Your task to perform on an android device: Search for "logitech g pro" on bestbuy, select the first entry, add it to the cart, then select checkout. Image 0: 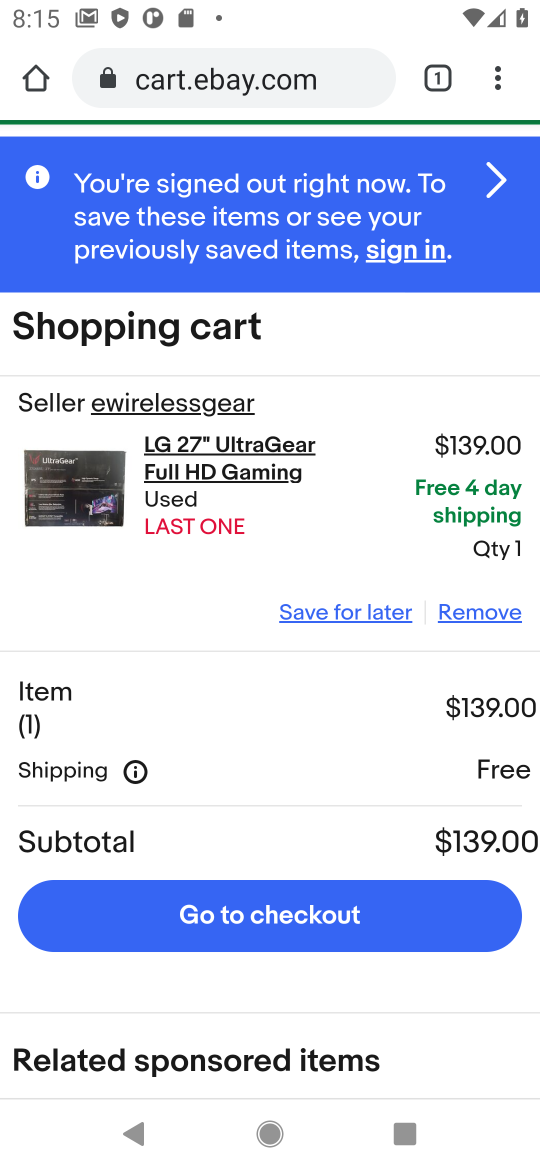
Step 0: press home button
Your task to perform on an android device: Search for "logitech g pro" on bestbuy, select the first entry, add it to the cart, then select checkout. Image 1: 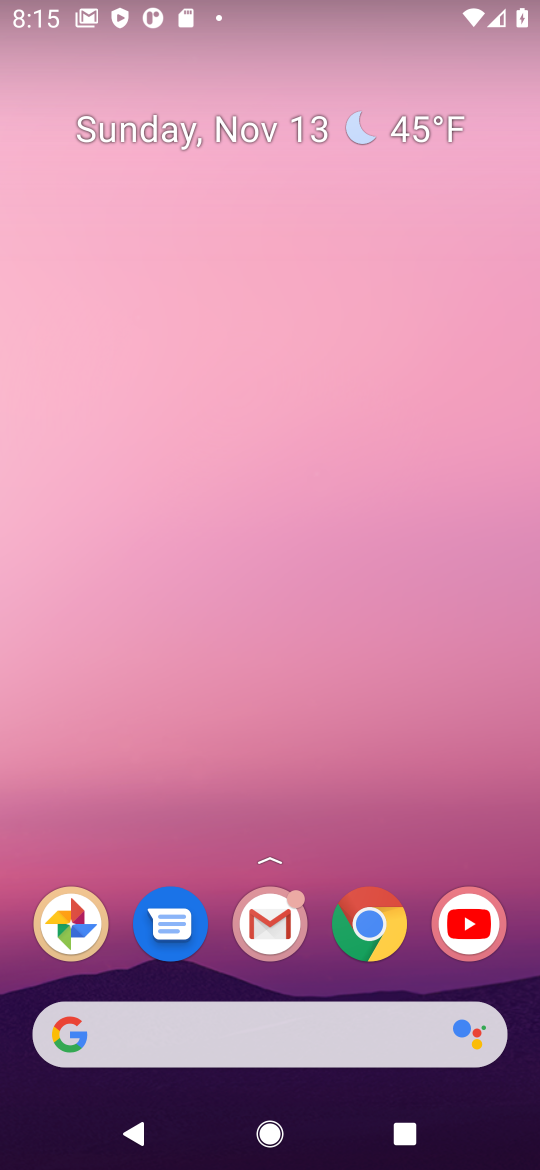
Step 1: click (377, 930)
Your task to perform on an android device: Search for "logitech g pro" on bestbuy, select the first entry, add it to the cart, then select checkout. Image 2: 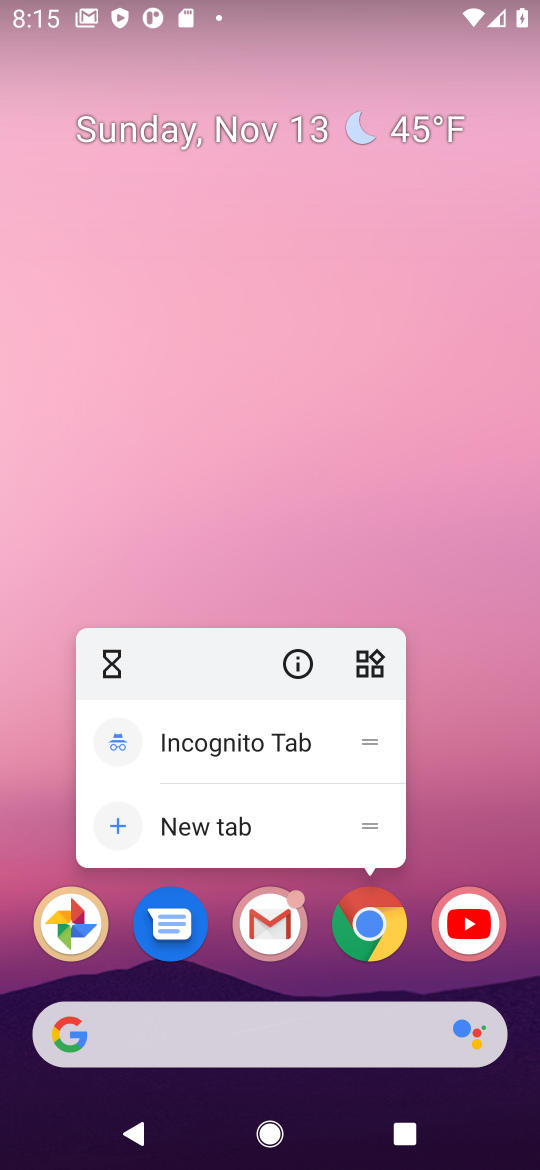
Step 2: click (371, 928)
Your task to perform on an android device: Search for "logitech g pro" on bestbuy, select the first entry, add it to the cart, then select checkout. Image 3: 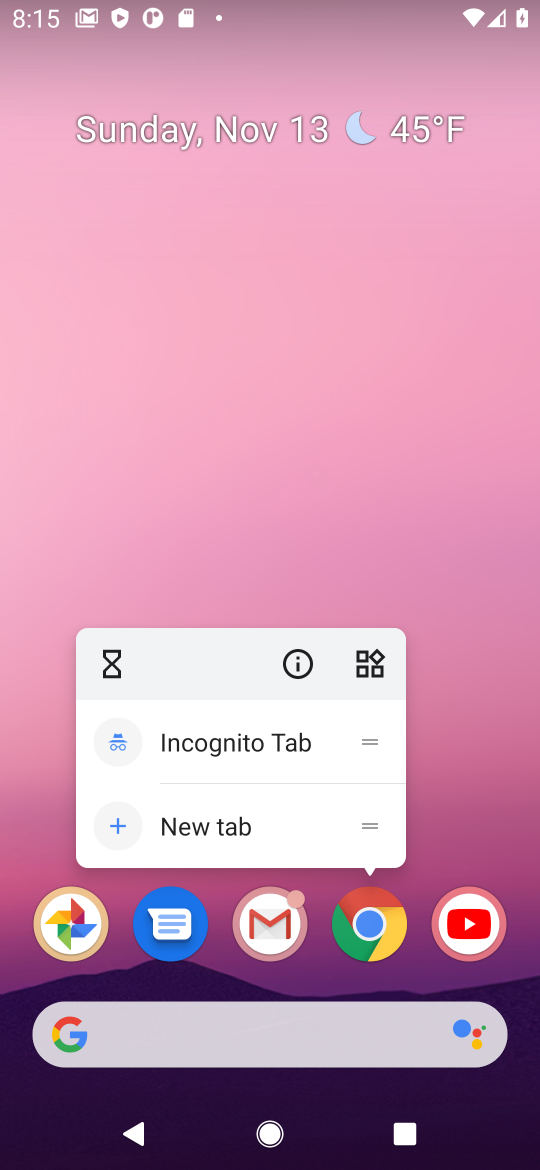
Step 3: click (372, 928)
Your task to perform on an android device: Search for "logitech g pro" on bestbuy, select the first entry, add it to the cart, then select checkout. Image 4: 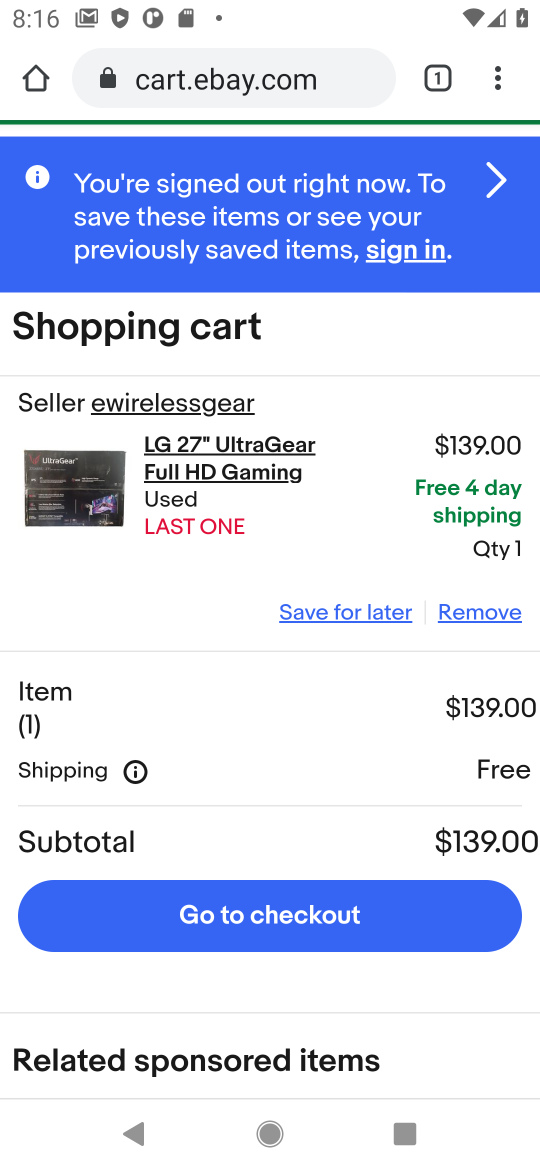
Step 4: click (282, 76)
Your task to perform on an android device: Search for "logitech g pro" on bestbuy, select the first entry, add it to the cart, then select checkout. Image 5: 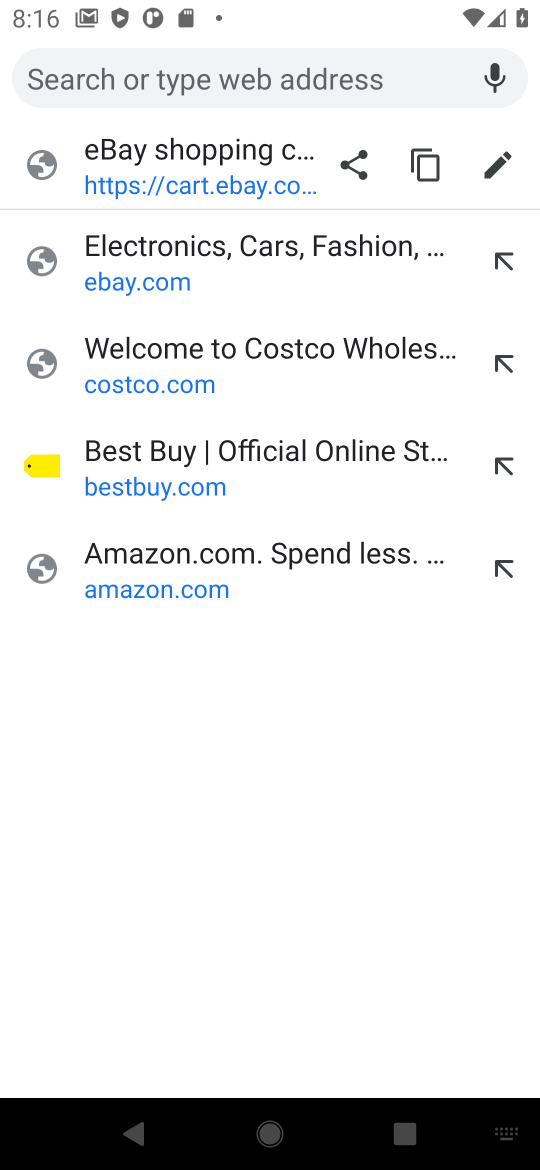
Step 5: click (134, 482)
Your task to perform on an android device: Search for "logitech g pro" on bestbuy, select the first entry, add it to the cart, then select checkout. Image 6: 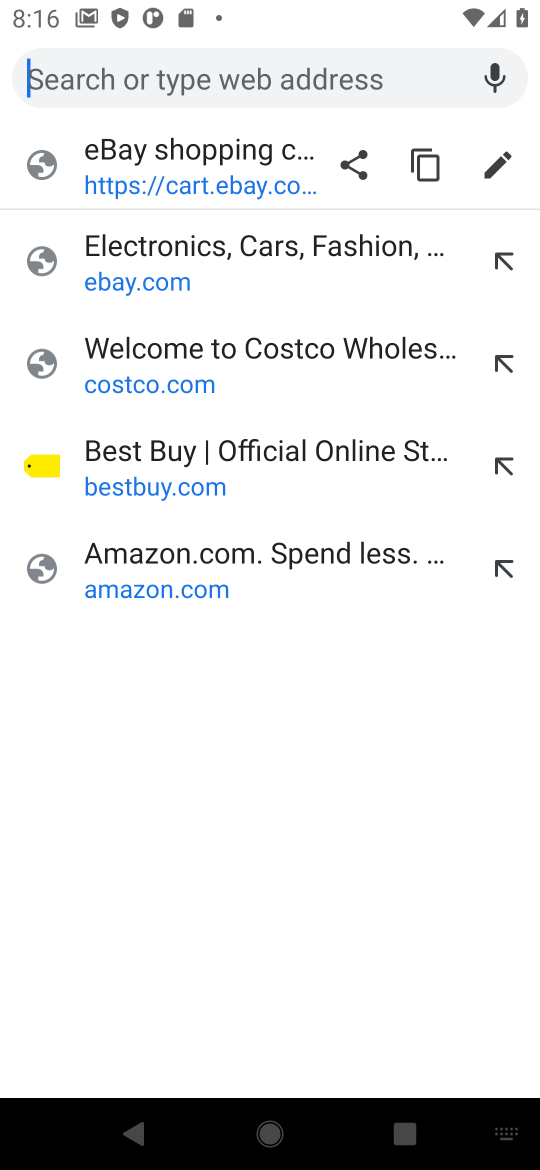
Step 6: click (141, 476)
Your task to perform on an android device: Search for "logitech g pro" on bestbuy, select the first entry, add it to the cart, then select checkout. Image 7: 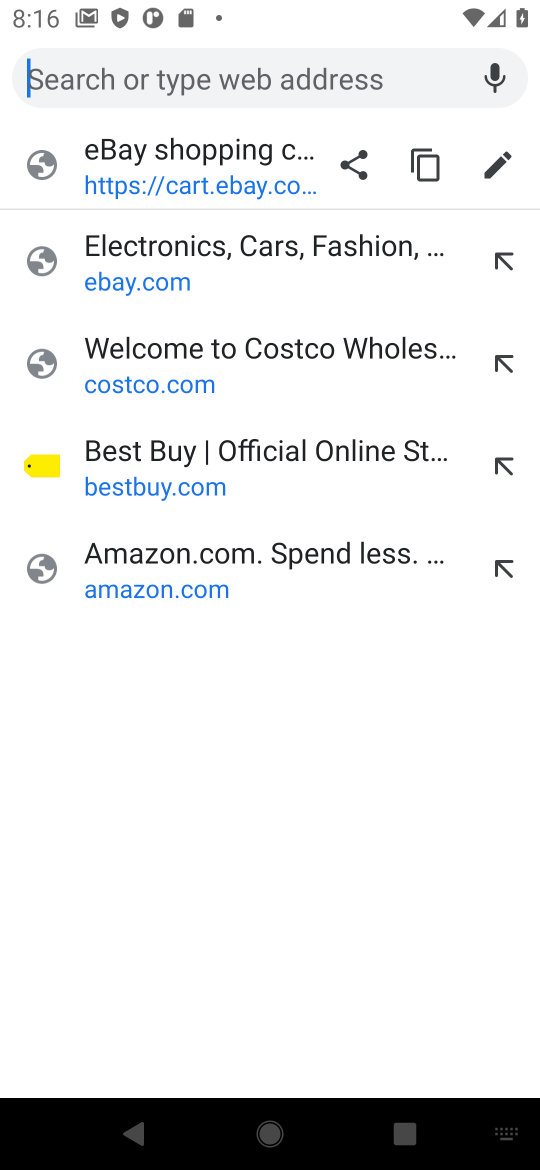
Step 7: click (141, 475)
Your task to perform on an android device: Search for "logitech g pro" on bestbuy, select the first entry, add it to the cart, then select checkout. Image 8: 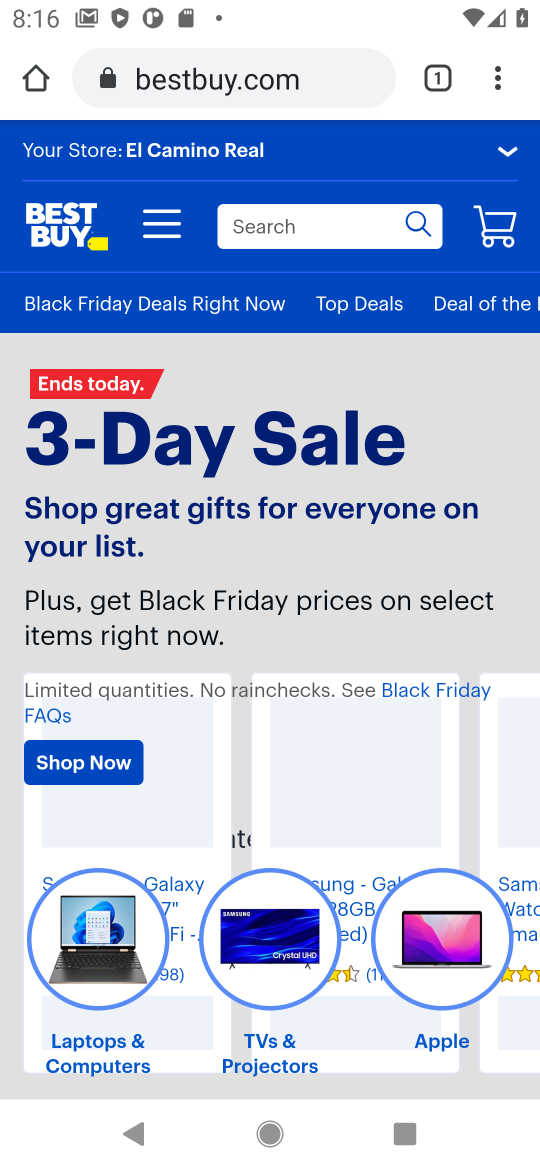
Step 8: click (299, 232)
Your task to perform on an android device: Search for "logitech g pro" on bestbuy, select the first entry, add it to the cart, then select checkout. Image 9: 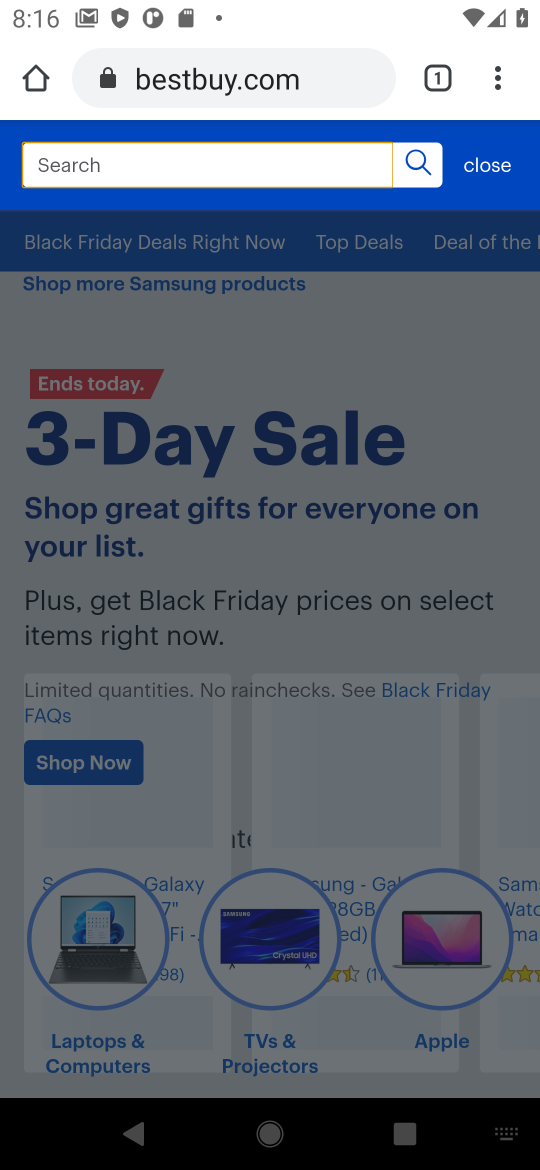
Step 9: type "logitech g pro"
Your task to perform on an android device: Search for "logitech g pro" on bestbuy, select the first entry, add it to the cart, then select checkout. Image 10: 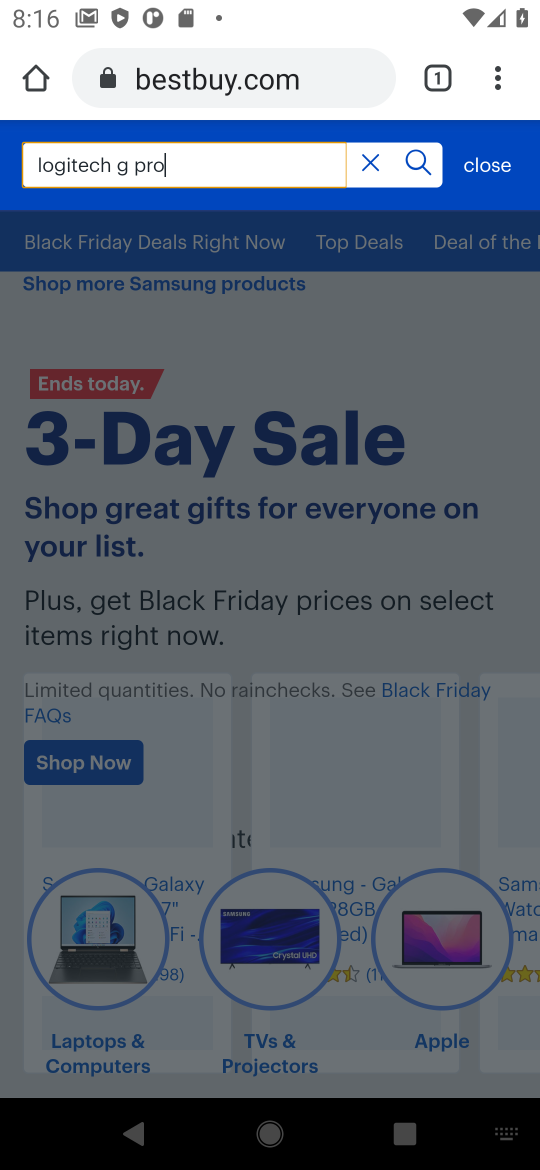
Step 10: press enter
Your task to perform on an android device: Search for "logitech g pro" on bestbuy, select the first entry, add it to the cart, then select checkout. Image 11: 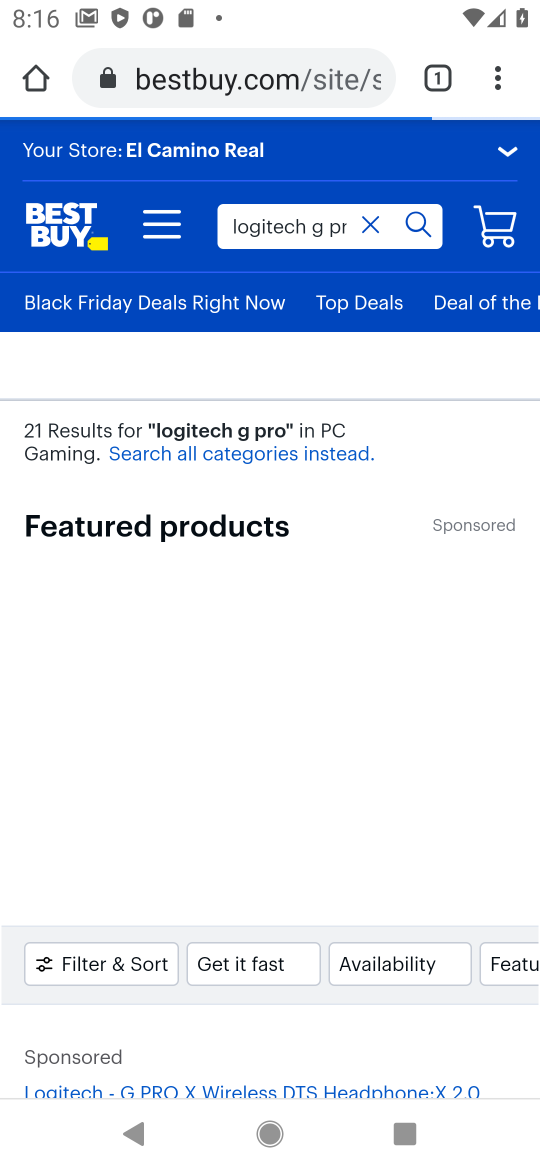
Step 11: drag from (338, 875) to (431, 357)
Your task to perform on an android device: Search for "logitech g pro" on bestbuy, select the first entry, add it to the cart, then select checkout. Image 12: 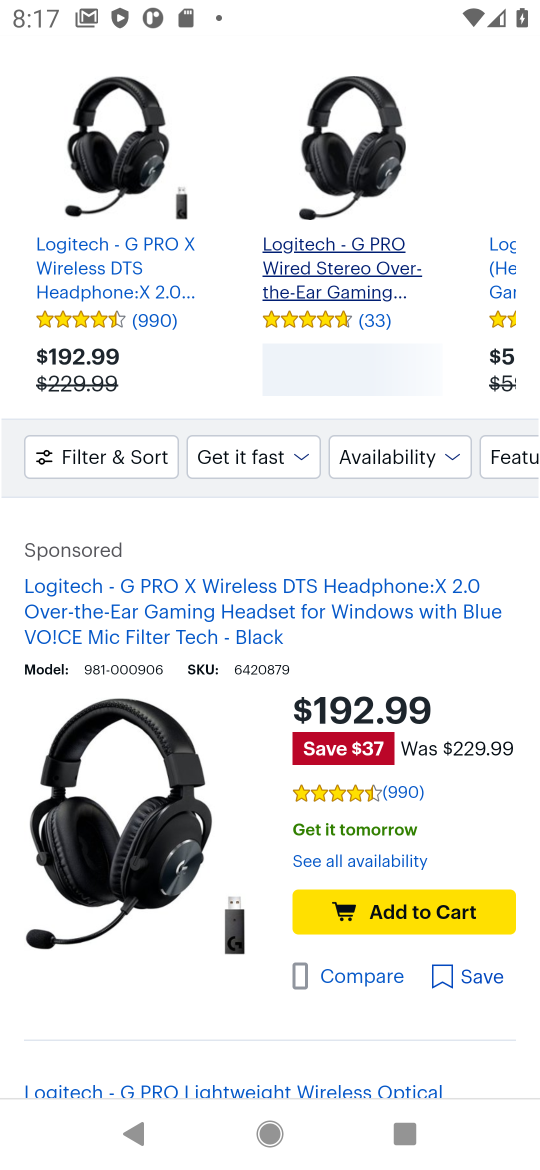
Step 12: click (446, 905)
Your task to perform on an android device: Search for "logitech g pro" on bestbuy, select the first entry, add it to the cart, then select checkout. Image 13: 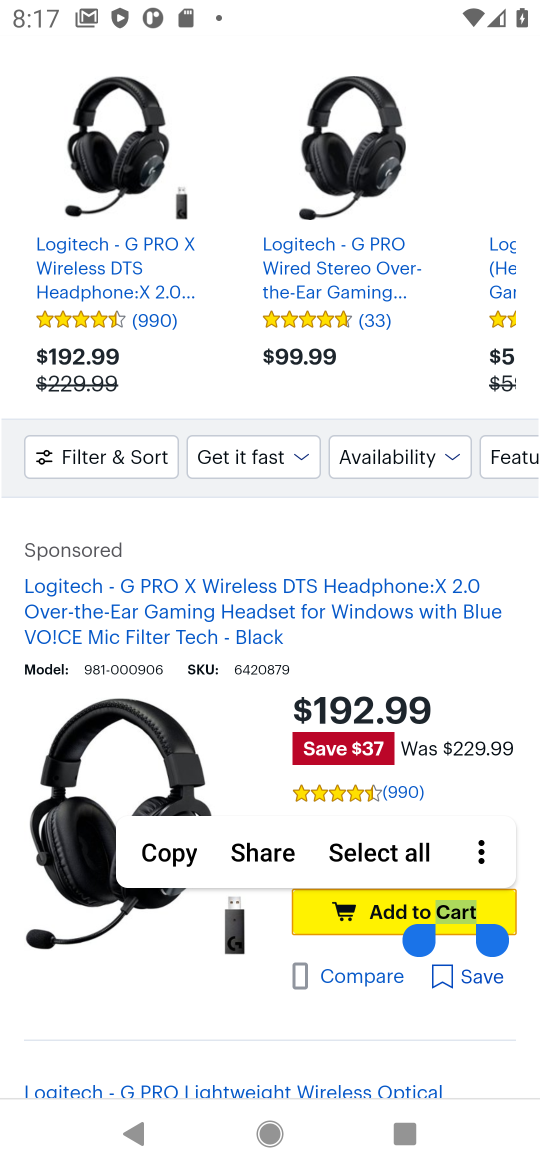
Step 13: click (394, 902)
Your task to perform on an android device: Search for "logitech g pro" on bestbuy, select the first entry, add it to the cart, then select checkout. Image 14: 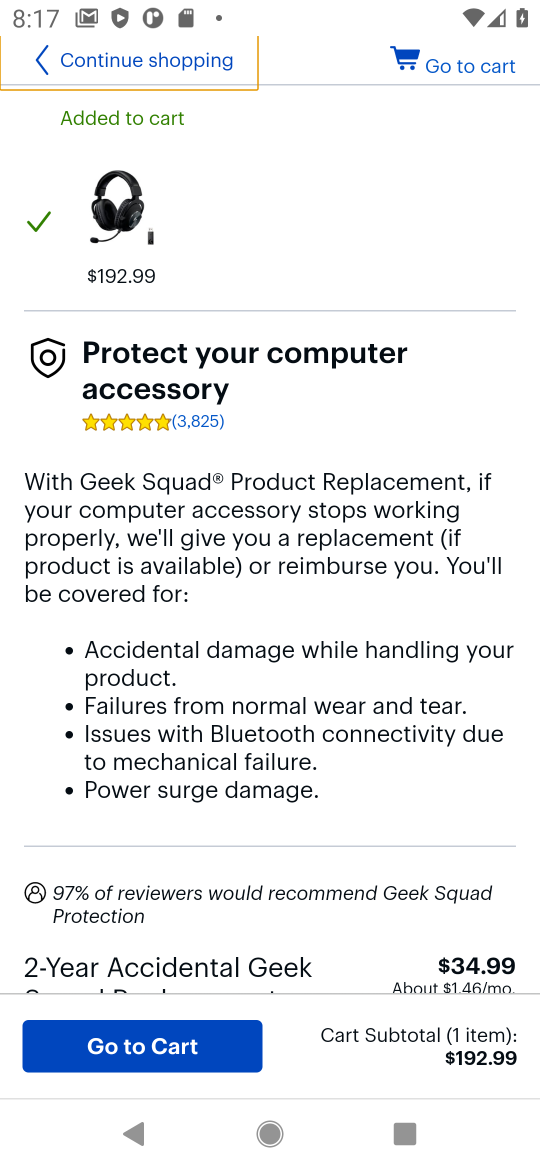
Step 14: click (497, 66)
Your task to perform on an android device: Search for "logitech g pro" on bestbuy, select the first entry, add it to the cart, then select checkout. Image 15: 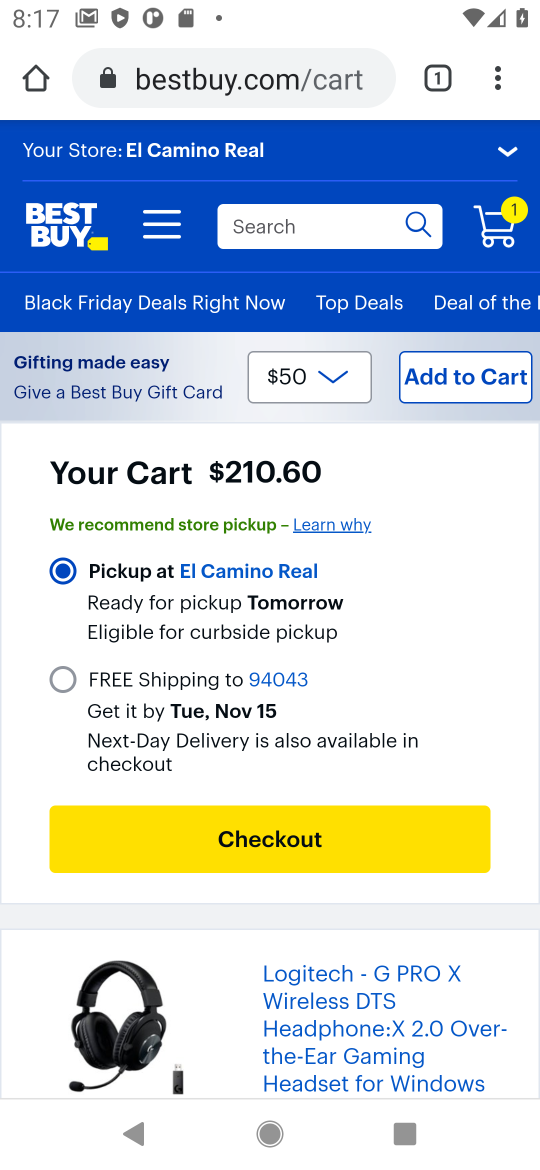
Step 15: click (277, 838)
Your task to perform on an android device: Search for "logitech g pro" on bestbuy, select the first entry, add it to the cart, then select checkout. Image 16: 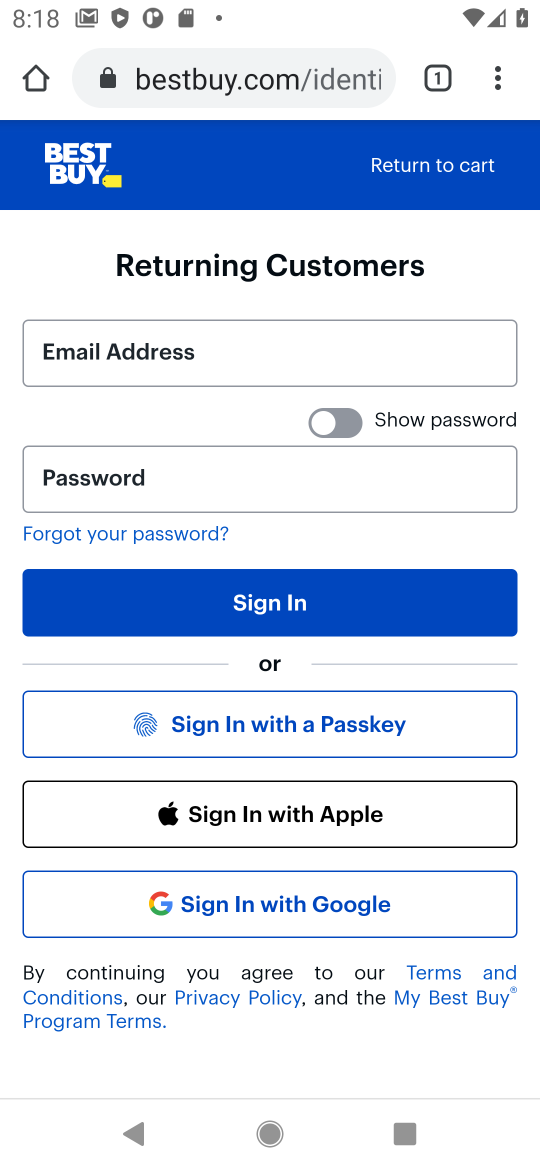
Step 16: task complete